Your task to perform on an android device: Go to Yahoo.com Image 0: 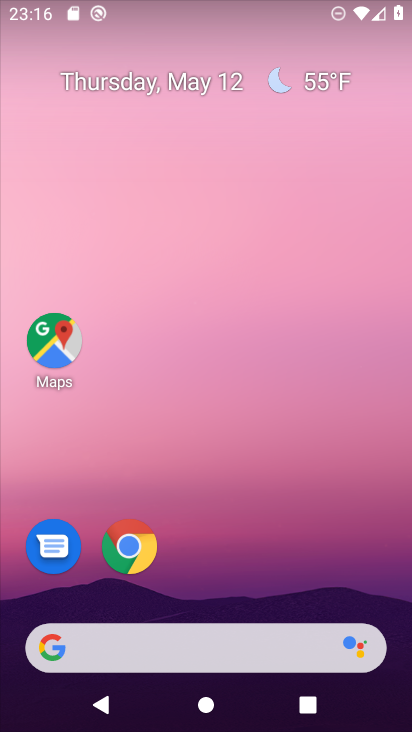
Step 0: click (130, 547)
Your task to perform on an android device: Go to Yahoo.com Image 1: 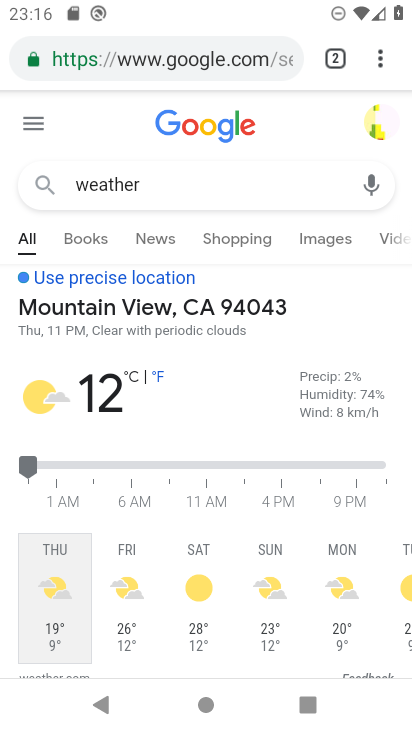
Step 1: click (129, 54)
Your task to perform on an android device: Go to Yahoo.com Image 2: 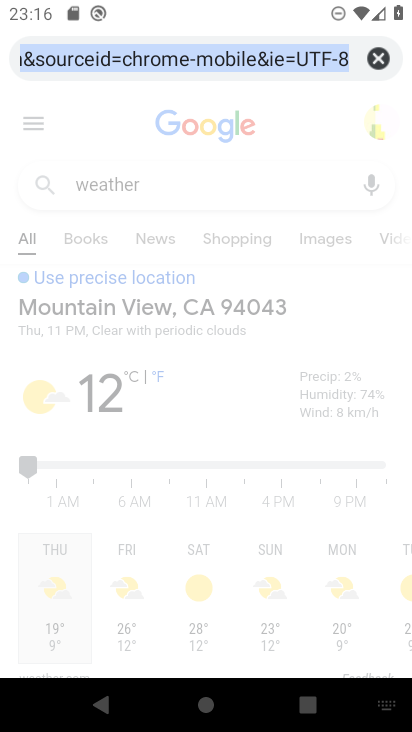
Step 2: type "Yahoo.com"
Your task to perform on an android device: Go to Yahoo.com Image 3: 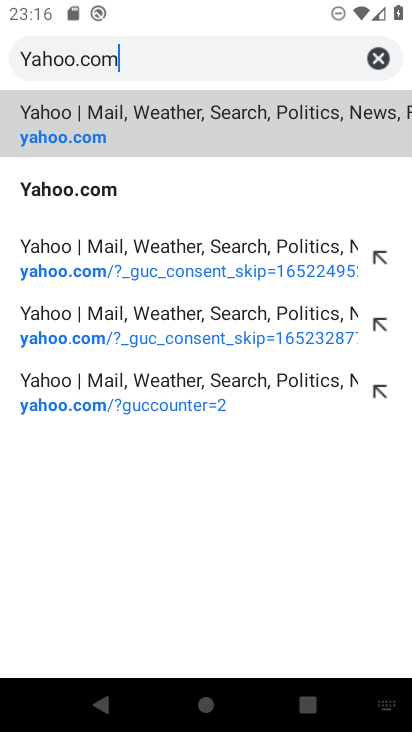
Step 3: click (155, 195)
Your task to perform on an android device: Go to Yahoo.com Image 4: 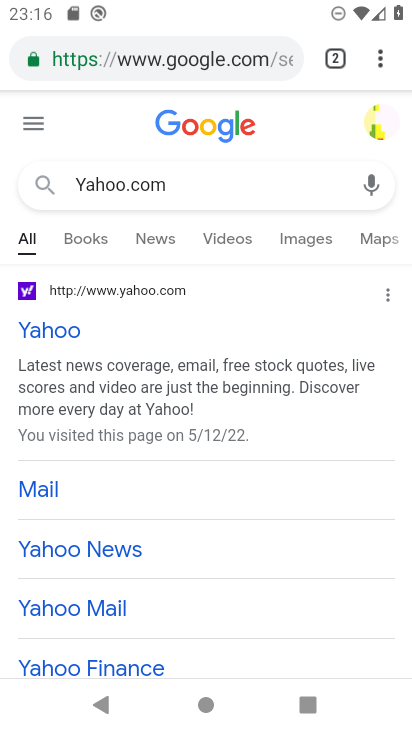
Step 4: task complete